Your task to perform on an android device: Show me popular videos on Youtube Image 0: 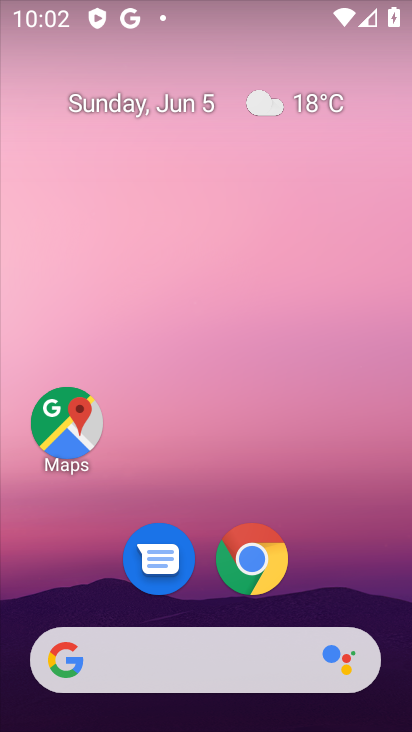
Step 0: drag from (350, 262) to (315, 92)
Your task to perform on an android device: Show me popular videos on Youtube Image 1: 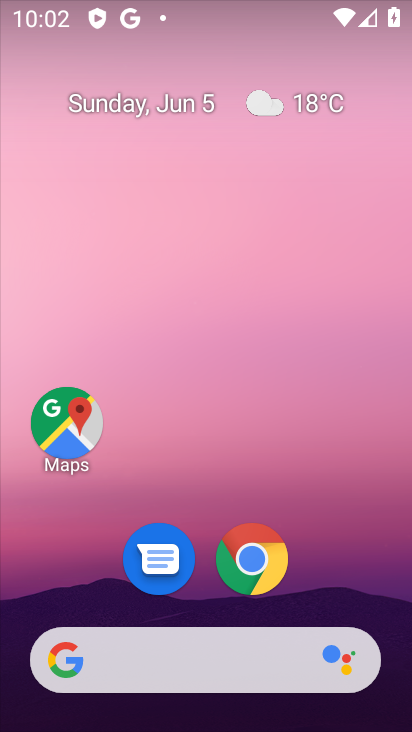
Step 1: drag from (393, 696) to (284, 63)
Your task to perform on an android device: Show me popular videos on Youtube Image 2: 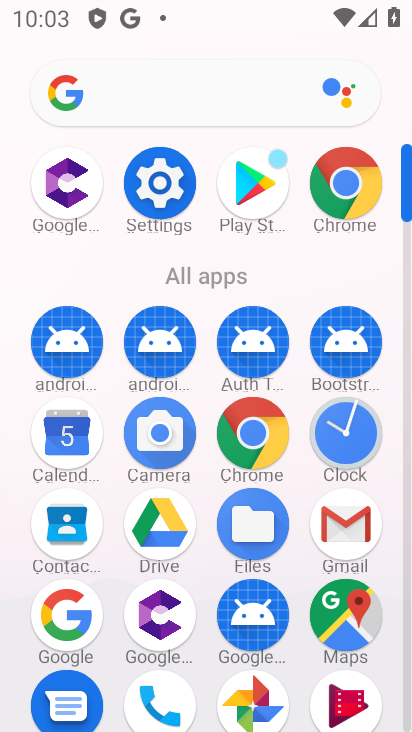
Step 2: drag from (197, 685) to (199, 243)
Your task to perform on an android device: Show me popular videos on Youtube Image 3: 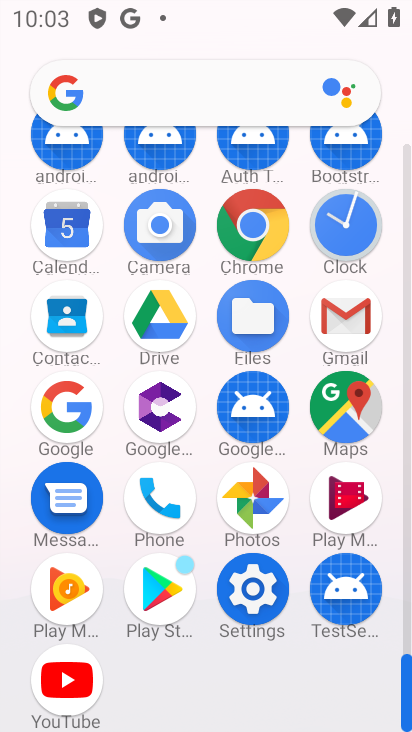
Step 3: click (72, 687)
Your task to perform on an android device: Show me popular videos on Youtube Image 4: 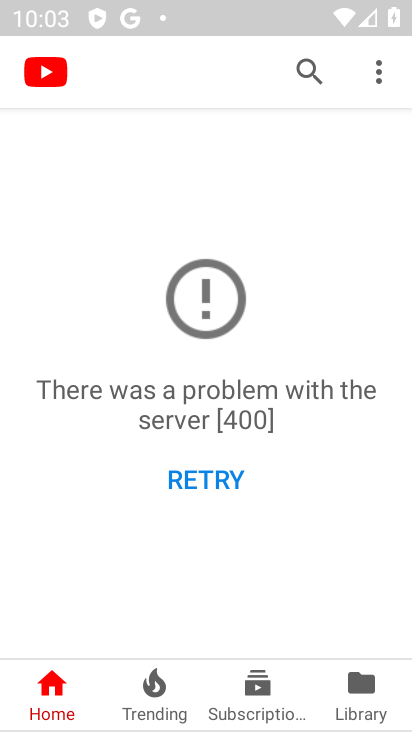
Step 4: click (362, 696)
Your task to perform on an android device: Show me popular videos on Youtube Image 5: 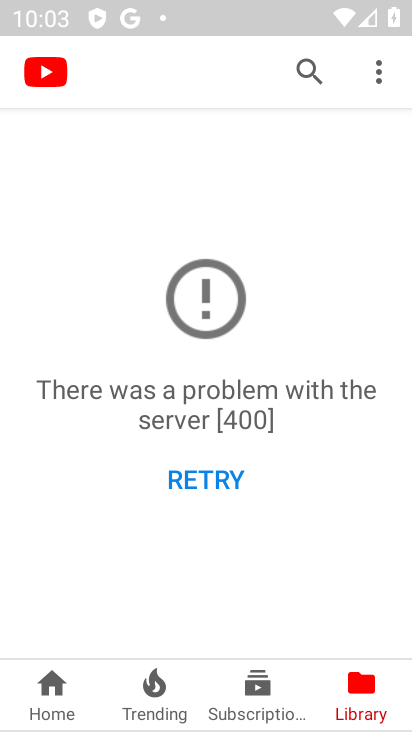
Step 5: task complete